Your task to perform on an android device: remove spam from my inbox in the gmail app Image 0: 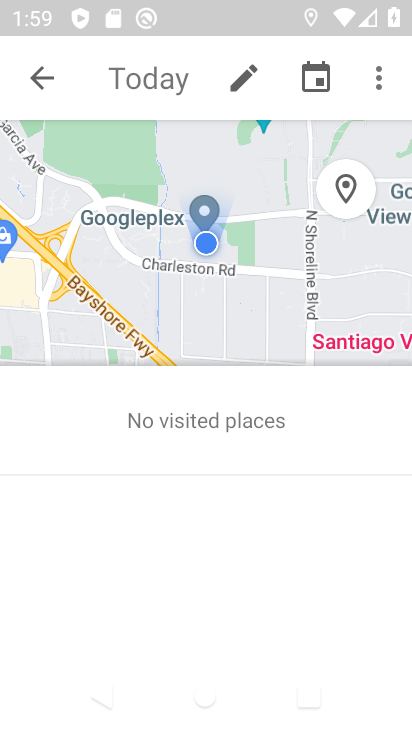
Step 0: press home button
Your task to perform on an android device: remove spam from my inbox in the gmail app Image 1: 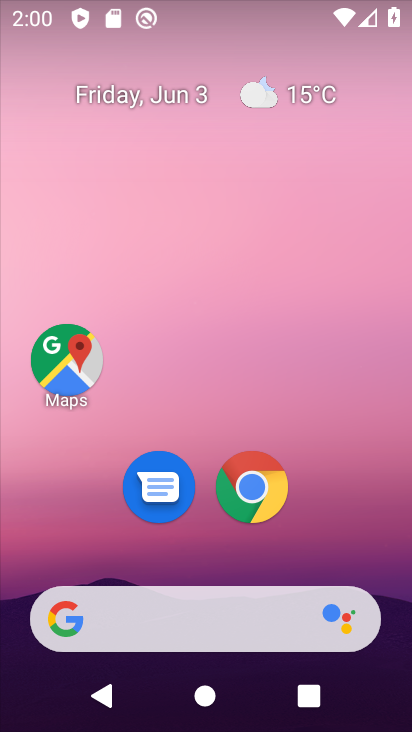
Step 1: drag from (275, 417) to (85, 23)
Your task to perform on an android device: remove spam from my inbox in the gmail app Image 2: 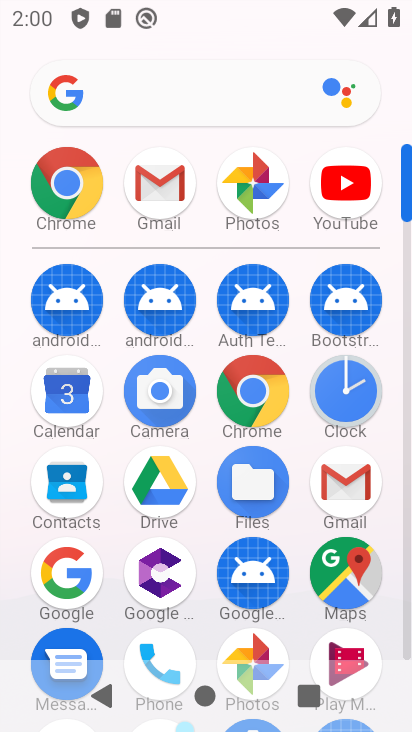
Step 2: click (151, 188)
Your task to perform on an android device: remove spam from my inbox in the gmail app Image 3: 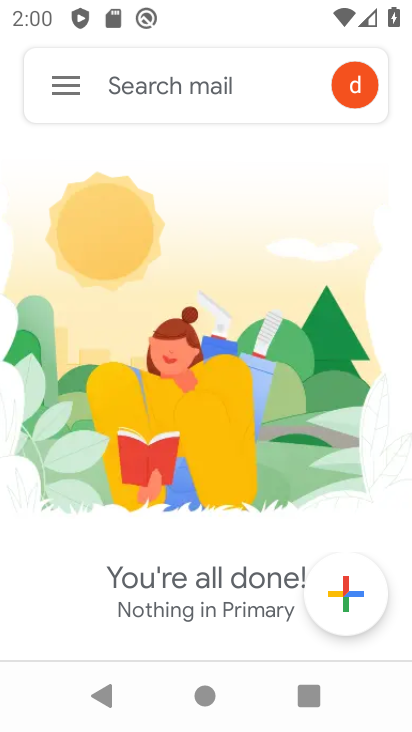
Step 3: click (64, 82)
Your task to perform on an android device: remove spam from my inbox in the gmail app Image 4: 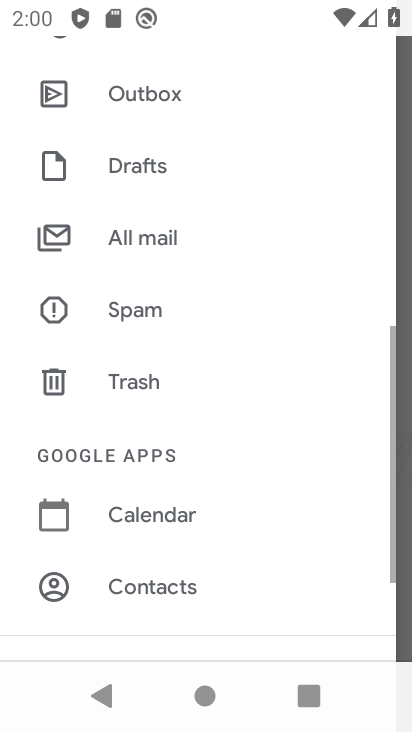
Step 4: click (143, 297)
Your task to perform on an android device: remove spam from my inbox in the gmail app Image 5: 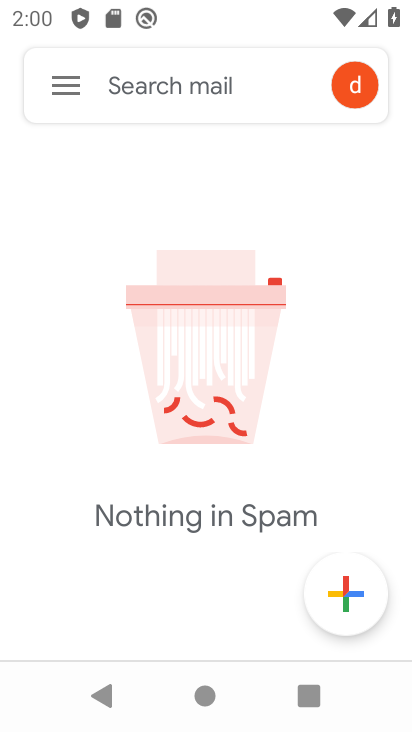
Step 5: task complete